Your task to perform on an android device: star an email in the gmail app Image 0: 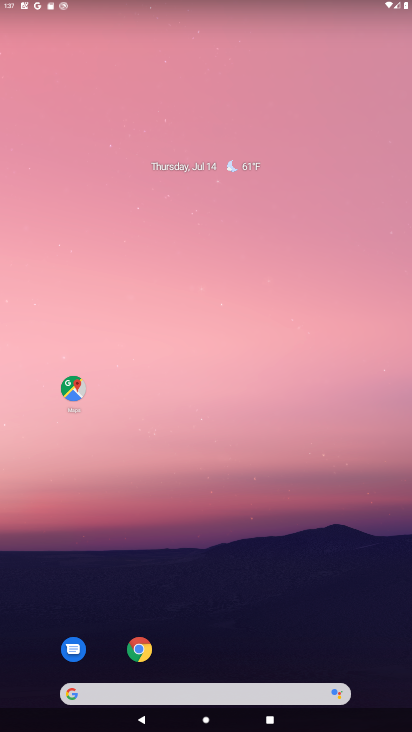
Step 0: drag from (232, 647) to (214, 9)
Your task to perform on an android device: star an email in the gmail app Image 1: 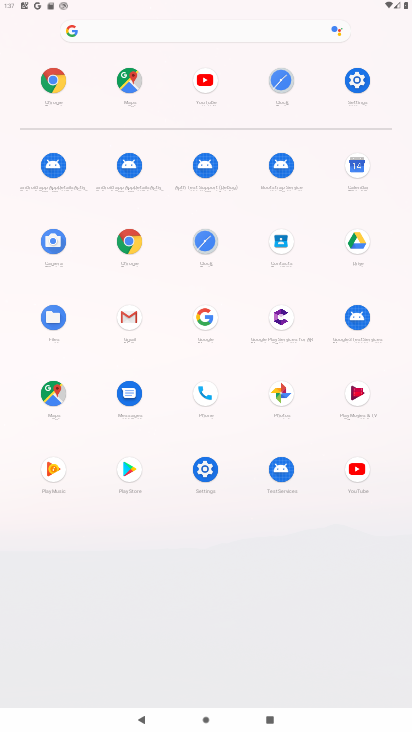
Step 1: click (130, 314)
Your task to perform on an android device: star an email in the gmail app Image 2: 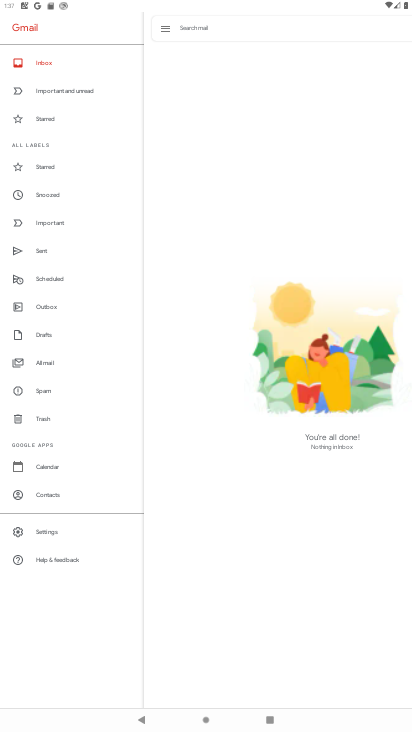
Step 2: click (52, 167)
Your task to perform on an android device: star an email in the gmail app Image 3: 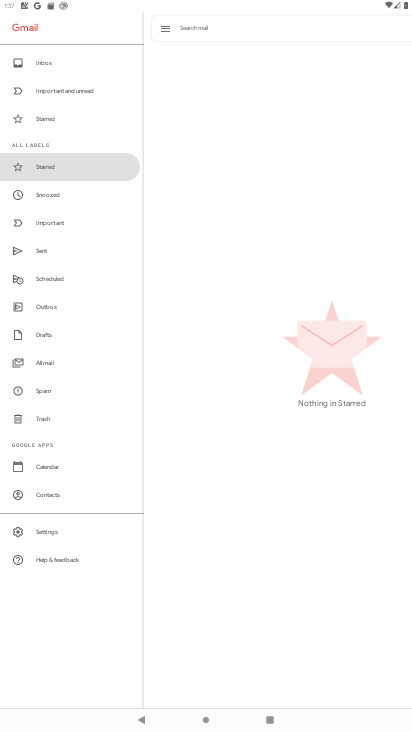
Step 3: task complete